Your task to perform on an android device: Go to Yahoo.com Image 0: 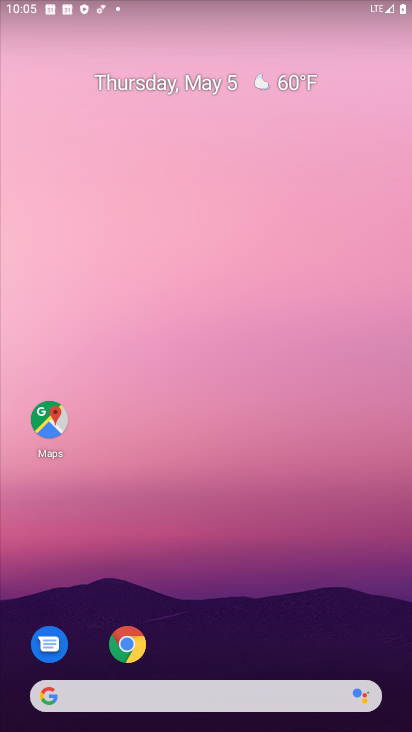
Step 0: drag from (194, 554) to (218, 275)
Your task to perform on an android device: Go to Yahoo.com Image 1: 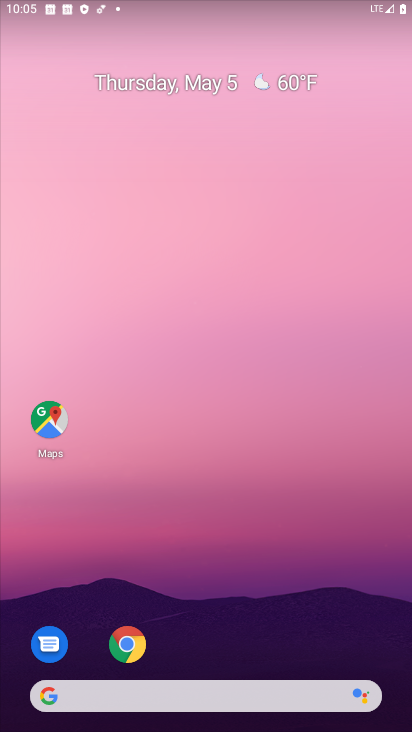
Step 1: drag from (224, 576) to (211, 133)
Your task to perform on an android device: Go to Yahoo.com Image 2: 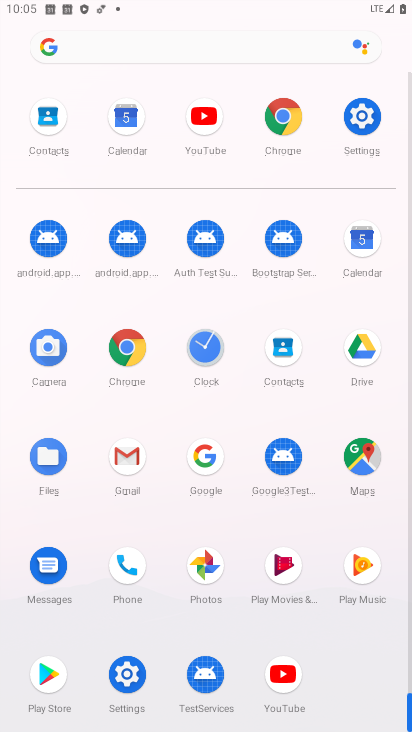
Step 2: click (274, 116)
Your task to perform on an android device: Go to Yahoo.com Image 3: 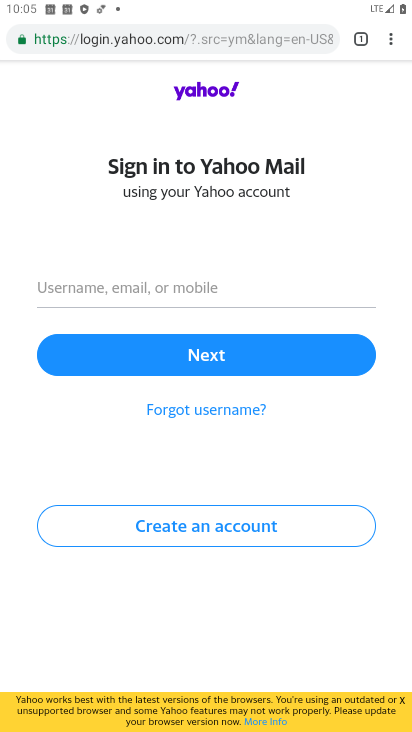
Step 3: click (366, 38)
Your task to perform on an android device: Go to Yahoo.com Image 4: 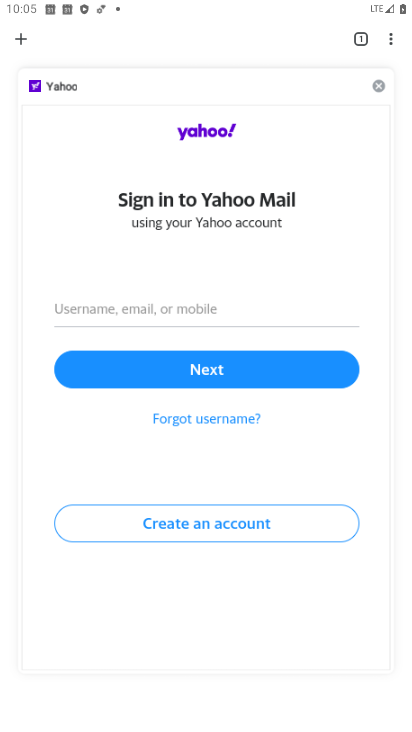
Step 4: click (383, 88)
Your task to perform on an android device: Go to Yahoo.com Image 5: 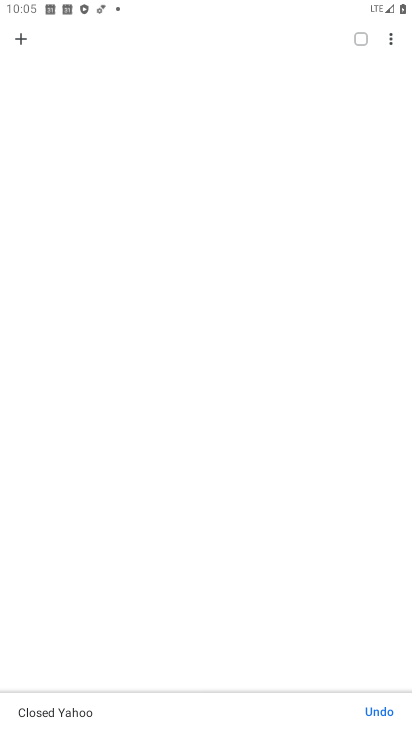
Step 5: click (20, 38)
Your task to perform on an android device: Go to Yahoo.com Image 6: 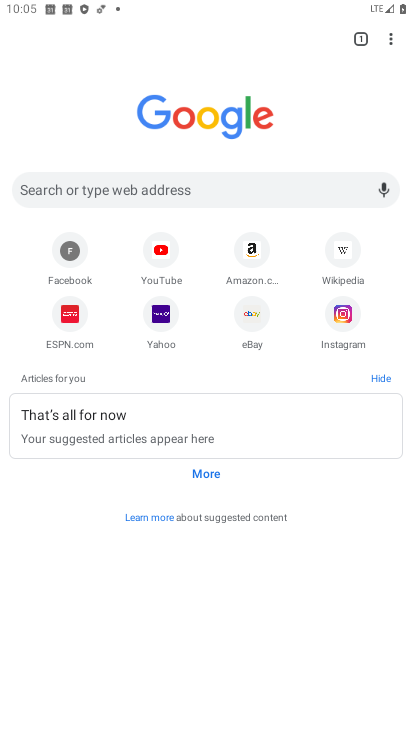
Step 6: click (157, 324)
Your task to perform on an android device: Go to Yahoo.com Image 7: 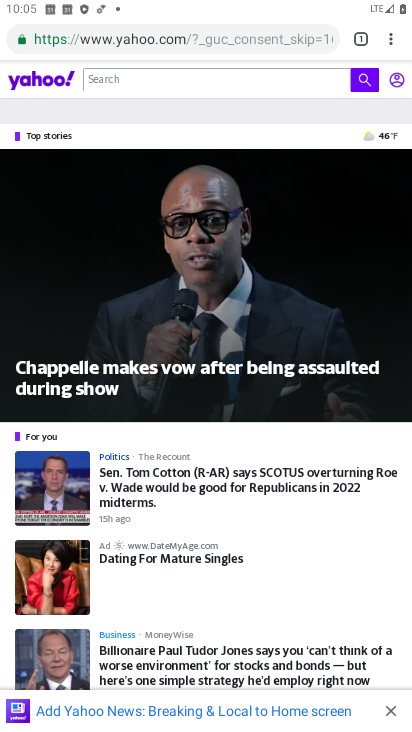
Step 7: task complete